Your task to perform on an android device: Search for a new lipstick on Sephora Image 0: 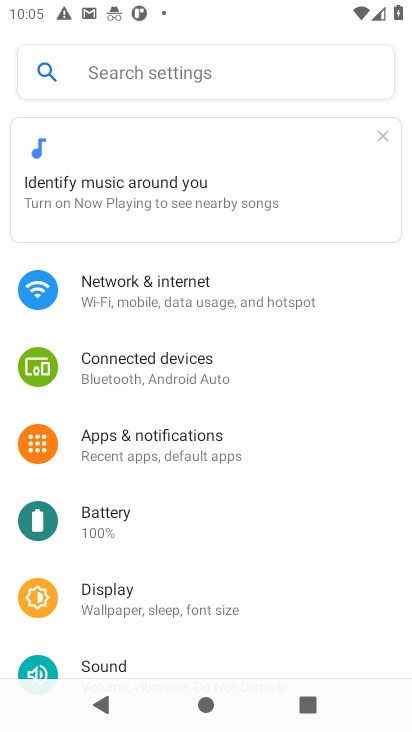
Step 0: press home button
Your task to perform on an android device: Search for a new lipstick on Sephora Image 1: 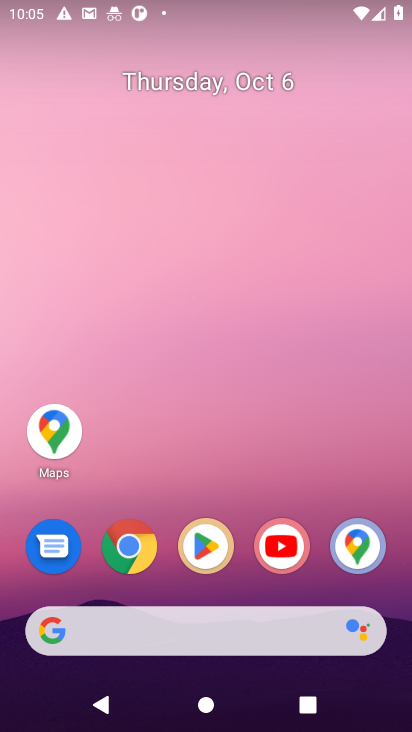
Step 1: click (133, 547)
Your task to perform on an android device: Search for a new lipstick on Sephora Image 2: 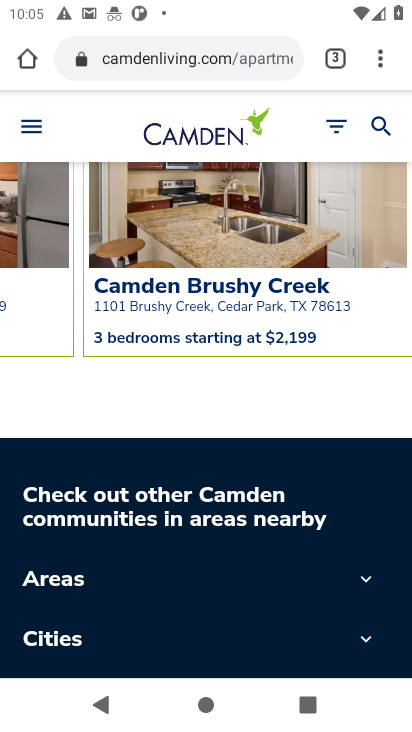
Step 2: click (182, 41)
Your task to perform on an android device: Search for a new lipstick on Sephora Image 3: 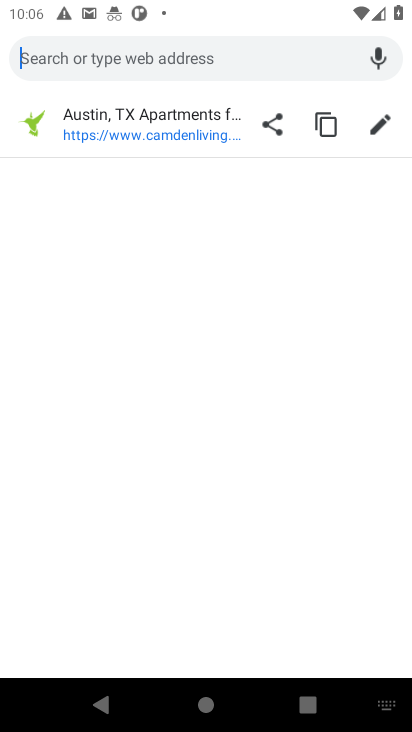
Step 3: type "lipstick on sephora"
Your task to perform on an android device: Search for a new lipstick on Sephora Image 4: 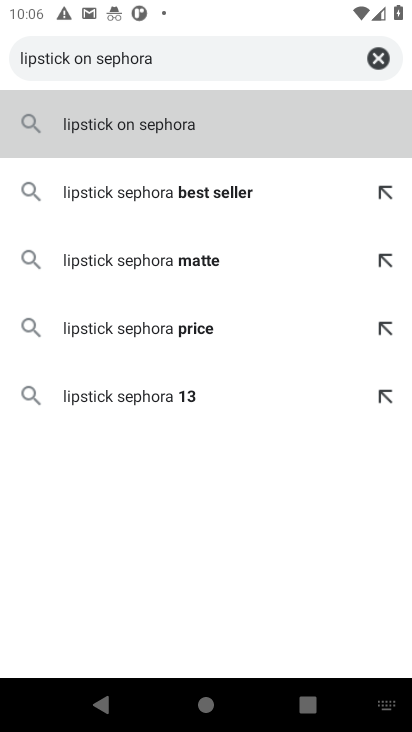
Step 4: click (140, 124)
Your task to perform on an android device: Search for a new lipstick on Sephora Image 5: 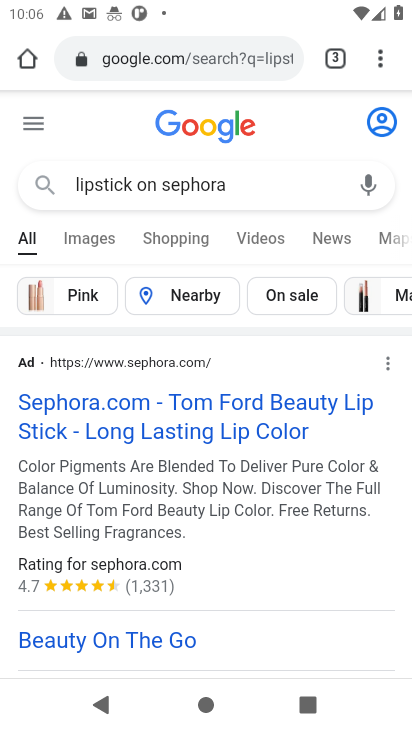
Step 5: click (91, 417)
Your task to perform on an android device: Search for a new lipstick on Sephora Image 6: 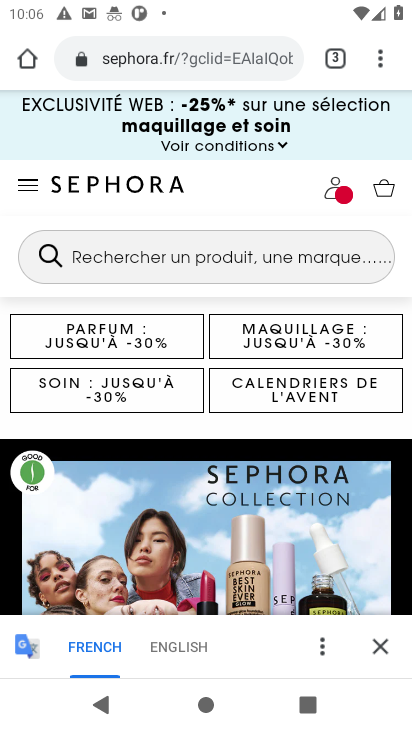
Step 6: drag from (229, 234) to (227, 52)
Your task to perform on an android device: Search for a new lipstick on Sephora Image 7: 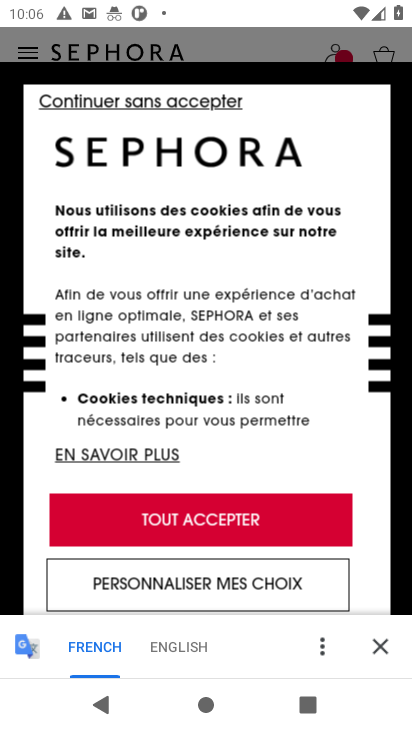
Step 7: drag from (396, 596) to (304, 78)
Your task to perform on an android device: Search for a new lipstick on Sephora Image 8: 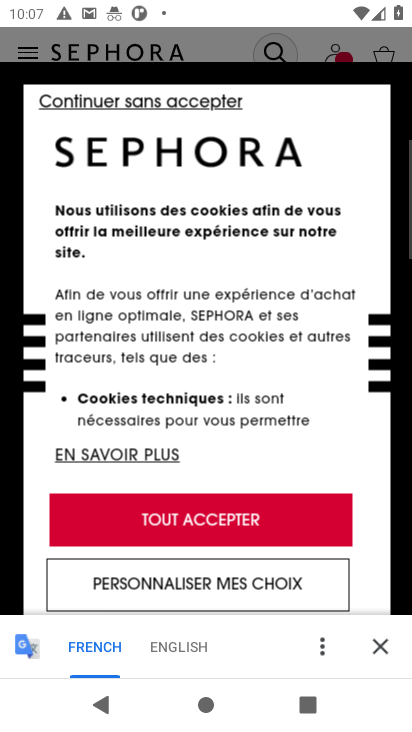
Step 8: click (206, 514)
Your task to perform on an android device: Search for a new lipstick on Sephora Image 9: 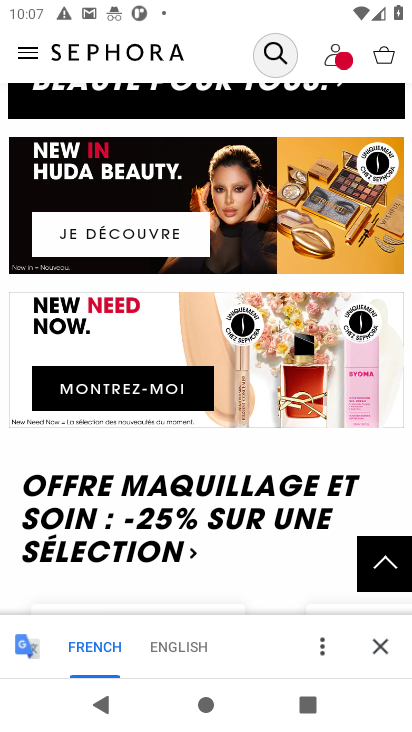
Step 9: drag from (229, 566) to (216, 95)
Your task to perform on an android device: Search for a new lipstick on Sephora Image 10: 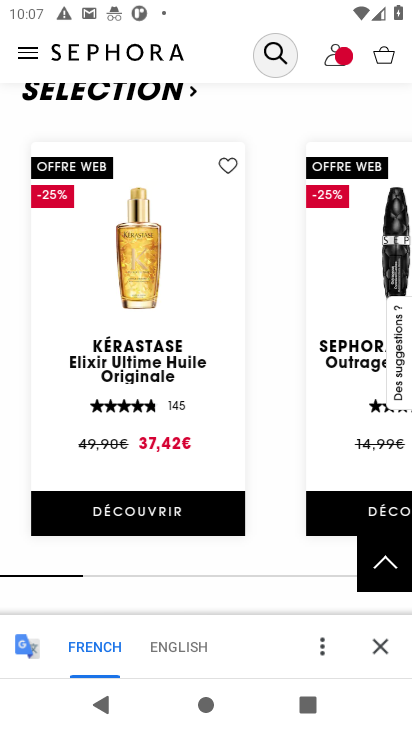
Step 10: drag from (262, 542) to (260, 453)
Your task to perform on an android device: Search for a new lipstick on Sephora Image 11: 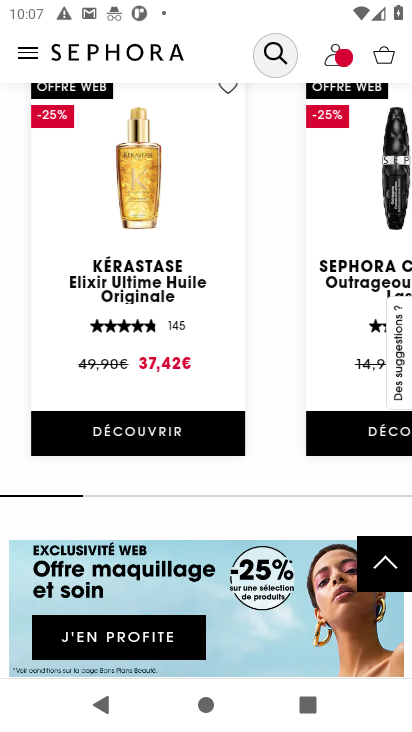
Step 11: drag from (284, 261) to (260, 464)
Your task to perform on an android device: Search for a new lipstick on Sephora Image 12: 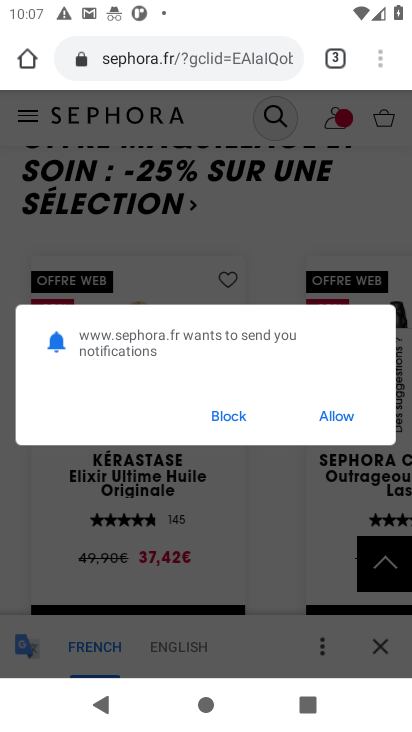
Step 12: click (220, 408)
Your task to perform on an android device: Search for a new lipstick on Sephora Image 13: 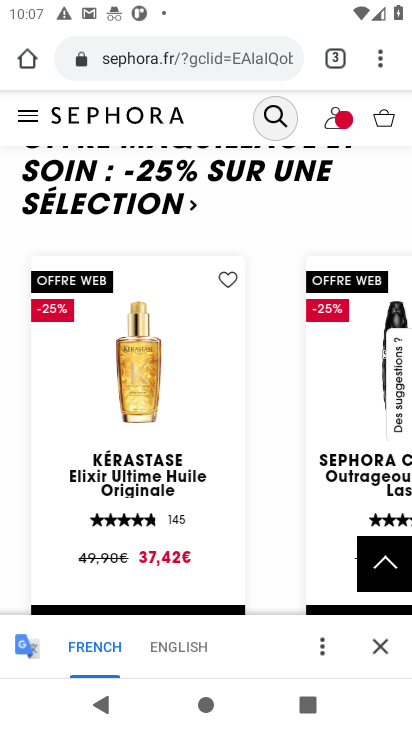
Step 13: task complete